Your task to perform on an android device: uninstall "TextNow: Call + Text Unlimited" Image 0: 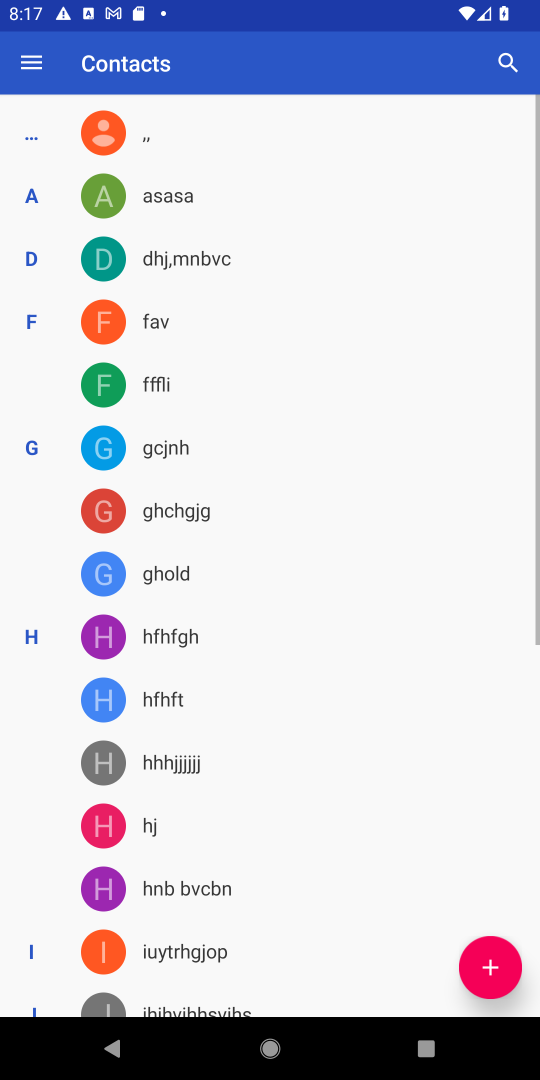
Step 0: press home button
Your task to perform on an android device: uninstall "TextNow: Call + Text Unlimited" Image 1: 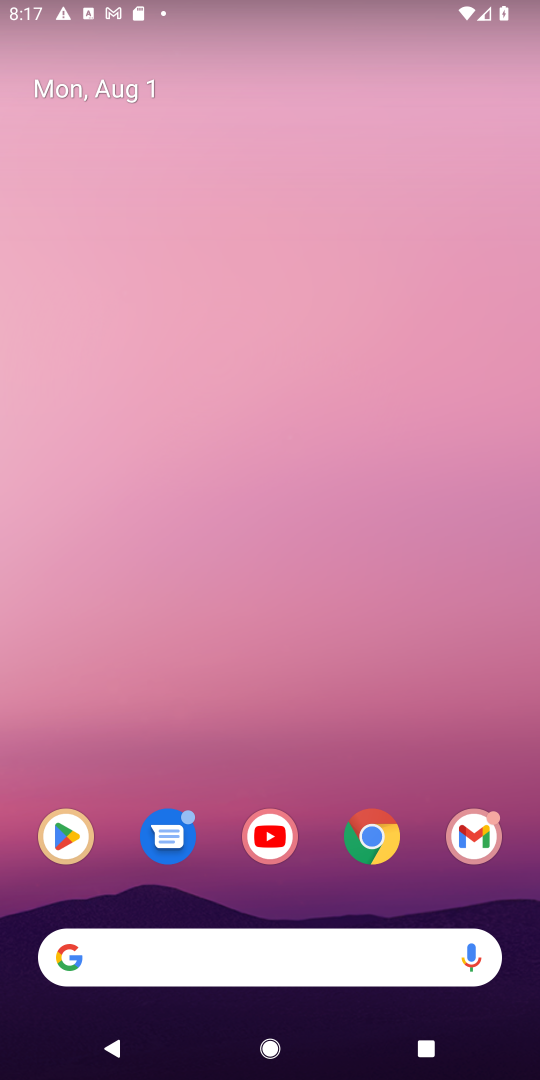
Step 1: click (79, 826)
Your task to perform on an android device: uninstall "TextNow: Call + Text Unlimited" Image 2: 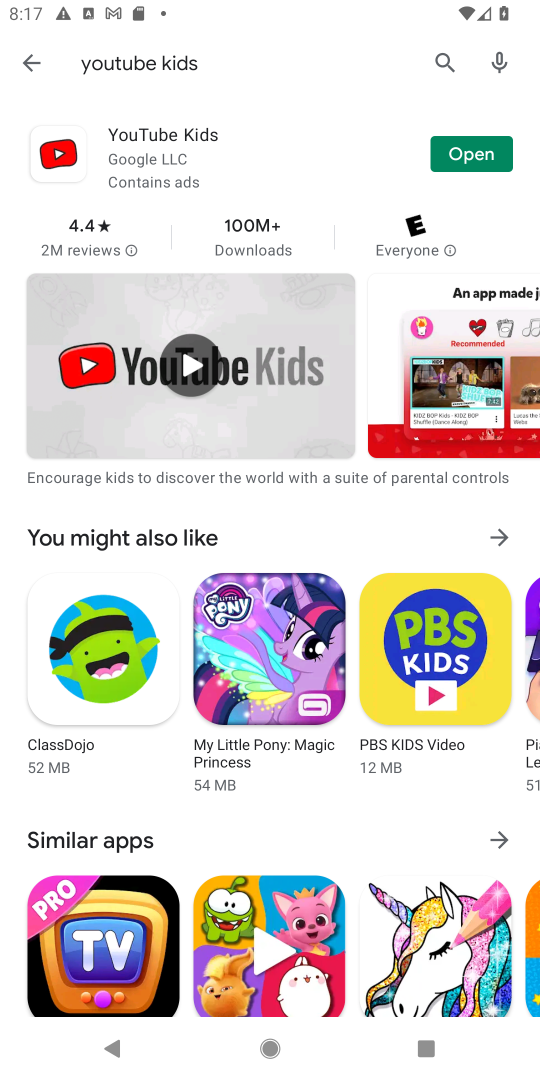
Step 2: click (438, 44)
Your task to perform on an android device: uninstall "TextNow: Call + Text Unlimited" Image 3: 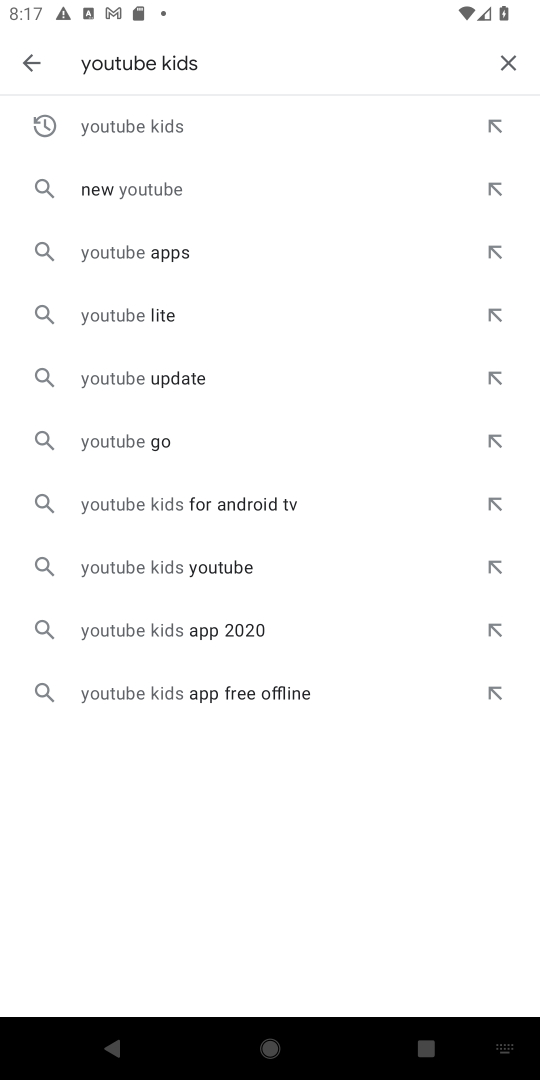
Step 3: click (509, 60)
Your task to perform on an android device: uninstall "TextNow: Call + Text Unlimited" Image 4: 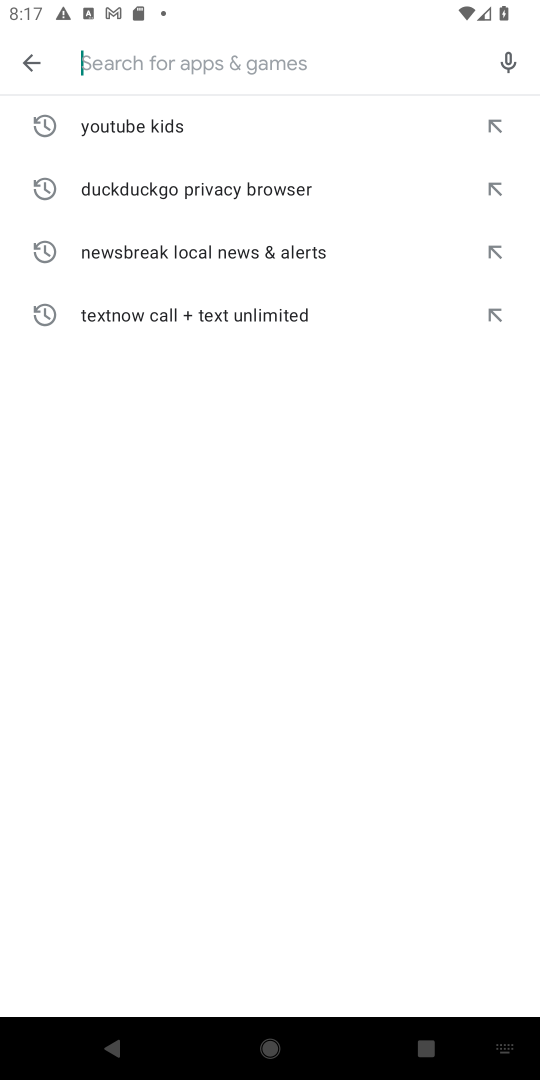
Step 4: type "TextNow: Call + Text Unlimited"
Your task to perform on an android device: uninstall "TextNow: Call + Text Unlimited" Image 5: 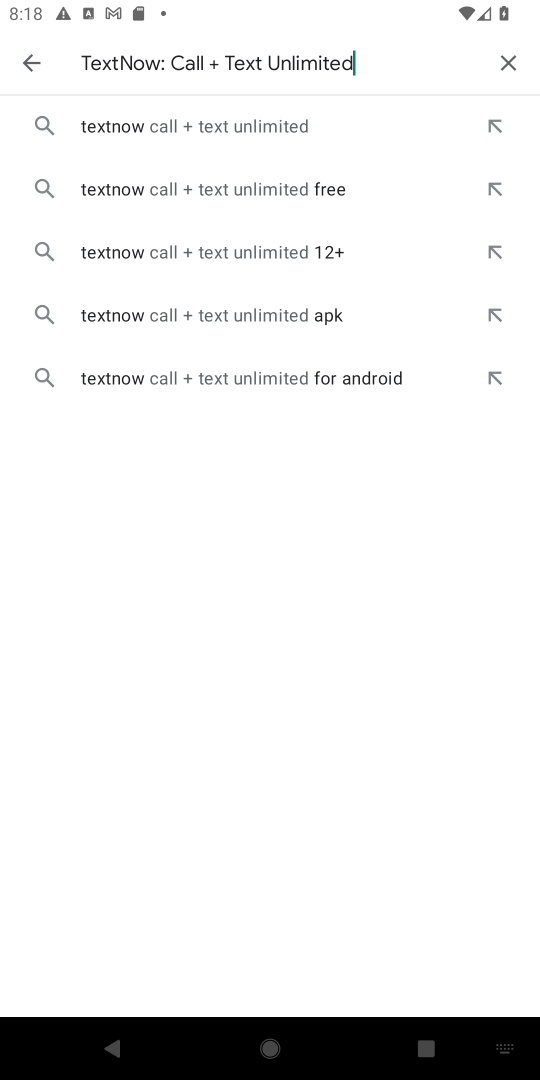
Step 5: click (201, 123)
Your task to perform on an android device: uninstall "TextNow: Call + Text Unlimited" Image 6: 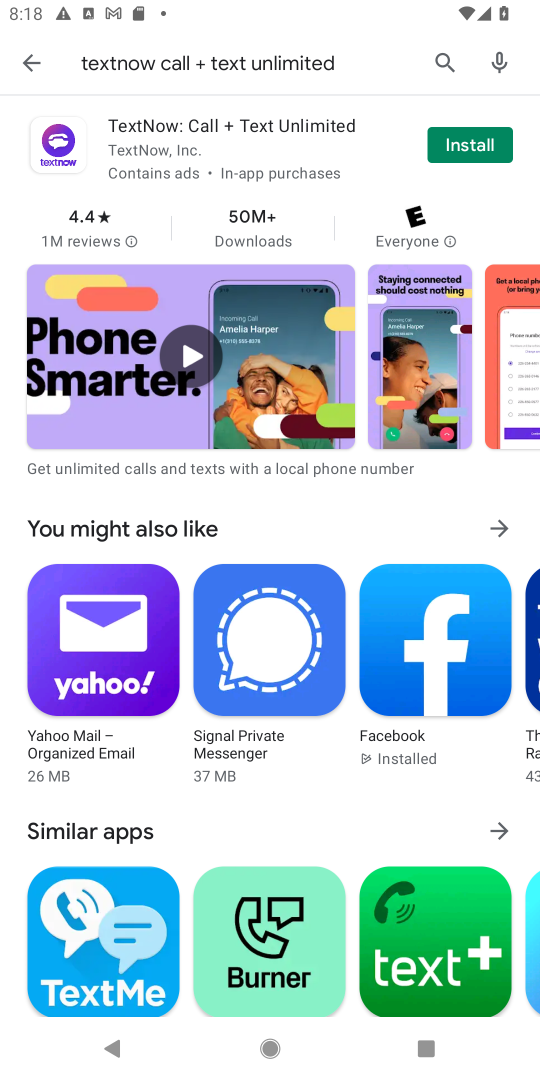
Step 6: task complete